Your task to perform on an android device: Open the stopwatch Image 0: 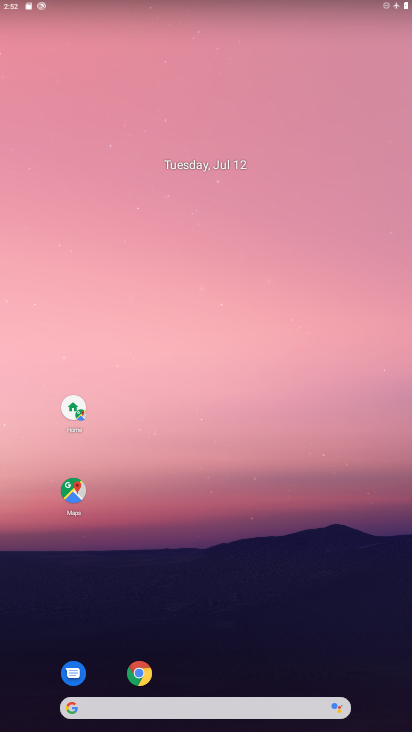
Step 0: drag from (259, 638) to (259, 329)
Your task to perform on an android device: Open the stopwatch Image 1: 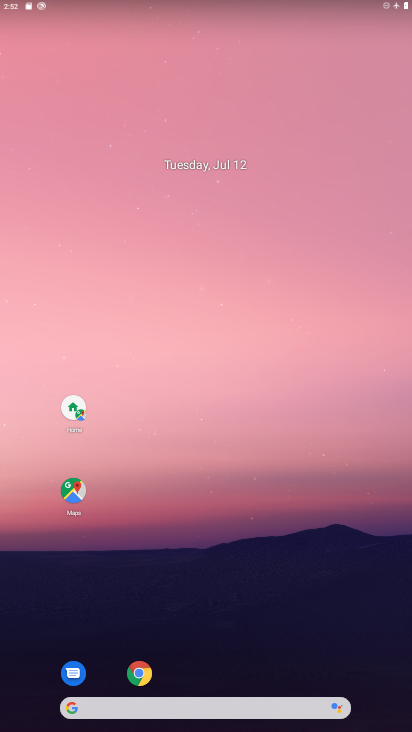
Step 1: drag from (222, 610) to (228, 229)
Your task to perform on an android device: Open the stopwatch Image 2: 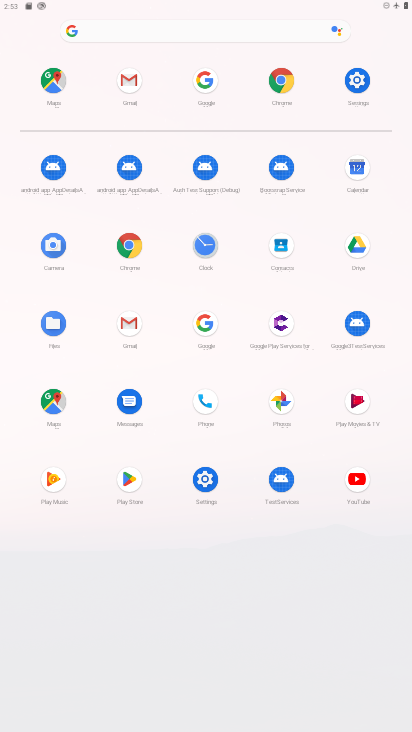
Step 2: click (206, 246)
Your task to perform on an android device: Open the stopwatch Image 3: 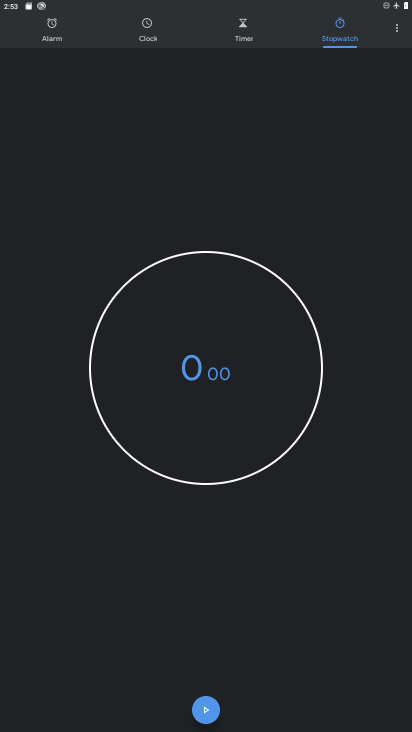
Step 3: click (339, 25)
Your task to perform on an android device: Open the stopwatch Image 4: 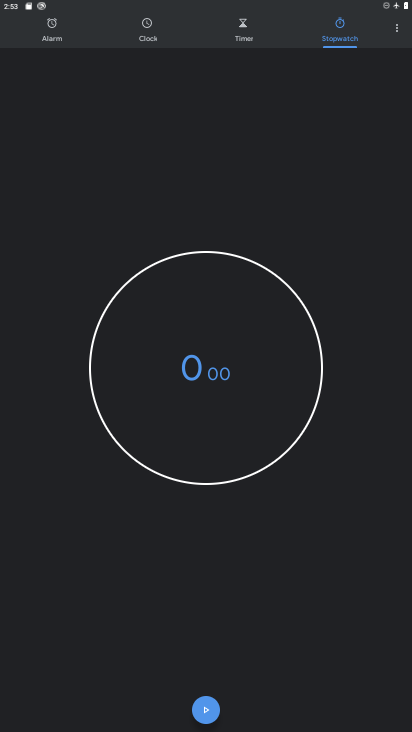
Step 4: task complete